Your task to perform on an android device: turn on javascript in the chrome app Image 0: 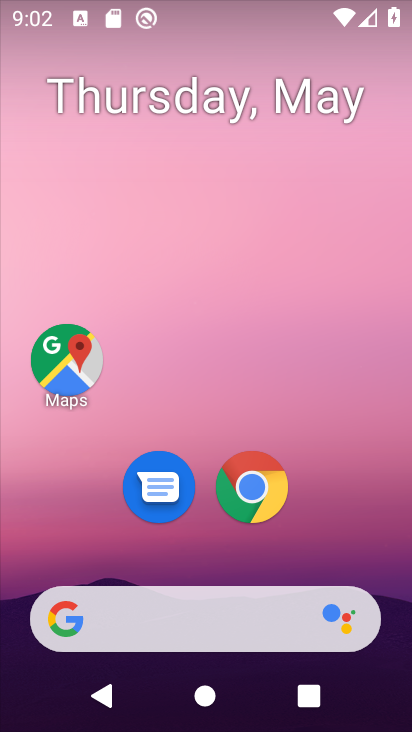
Step 0: click (262, 484)
Your task to perform on an android device: turn on javascript in the chrome app Image 1: 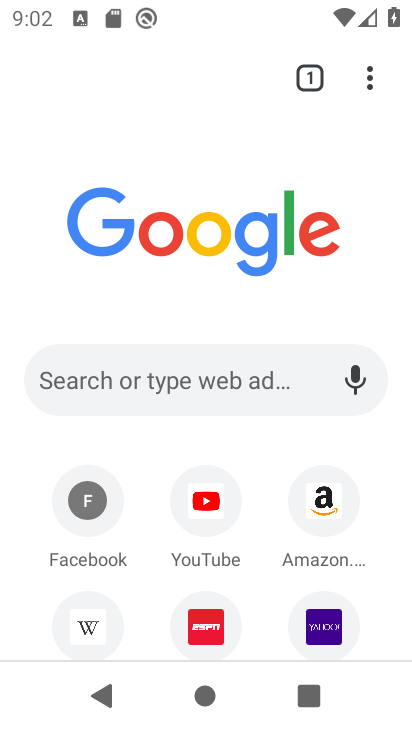
Step 1: click (370, 88)
Your task to perform on an android device: turn on javascript in the chrome app Image 2: 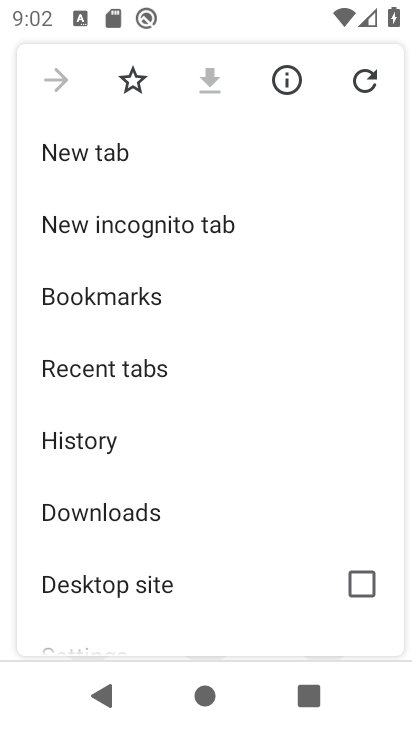
Step 2: drag from (186, 607) to (212, 6)
Your task to perform on an android device: turn on javascript in the chrome app Image 3: 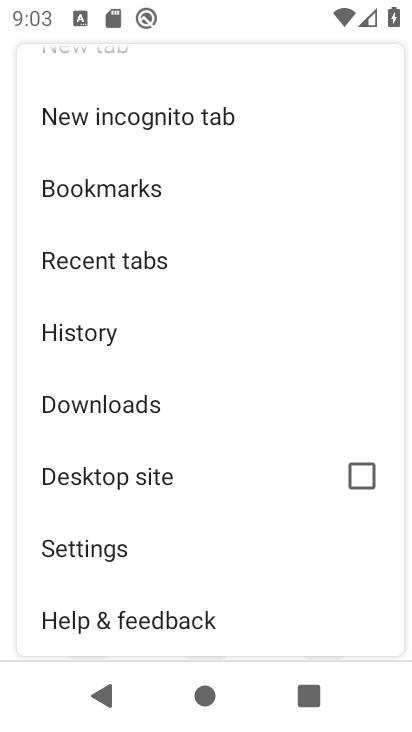
Step 3: click (110, 551)
Your task to perform on an android device: turn on javascript in the chrome app Image 4: 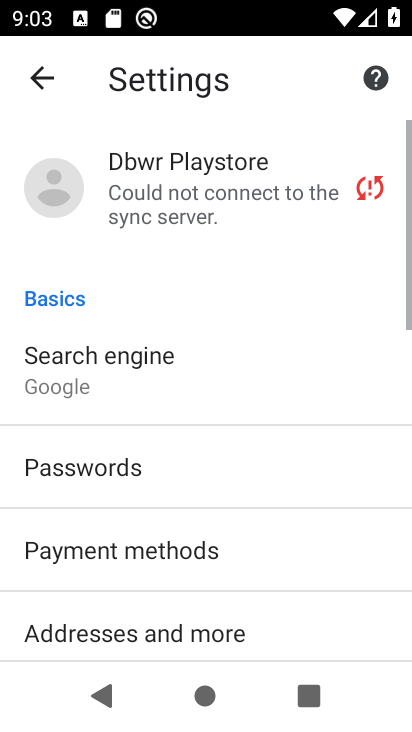
Step 4: drag from (242, 498) to (203, 48)
Your task to perform on an android device: turn on javascript in the chrome app Image 5: 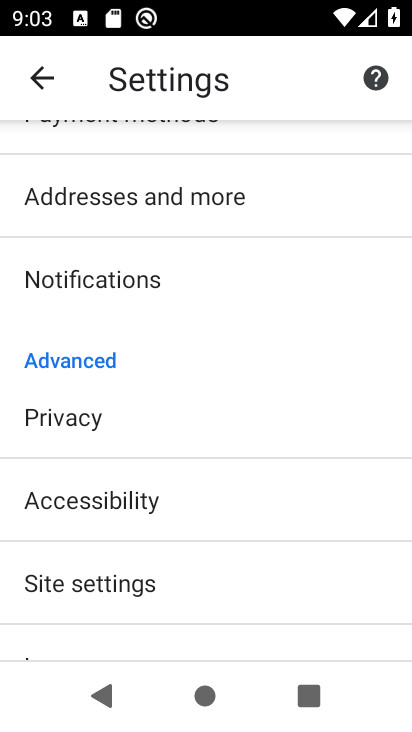
Step 5: click (164, 577)
Your task to perform on an android device: turn on javascript in the chrome app Image 6: 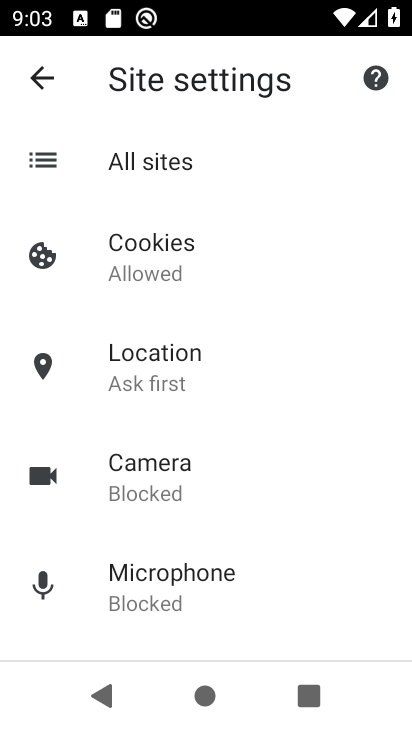
Step 6: drag from (293, 605) to (225, 103)
Your task to perform on an android device: turn on javascript in the chrome app Image 7: 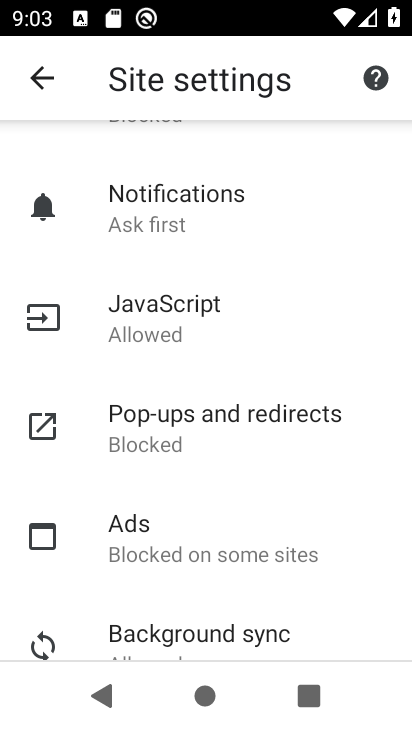
Step 7: click (183, 305)
Your task to perform on an android device: turn on javascript in the chrome app Image 8: 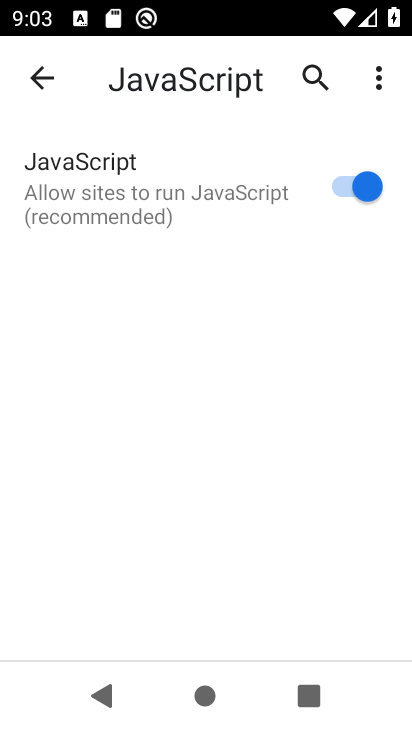
Step 8: task complete